Your task to perform on an android device: Go to Reddit.com Image 0: 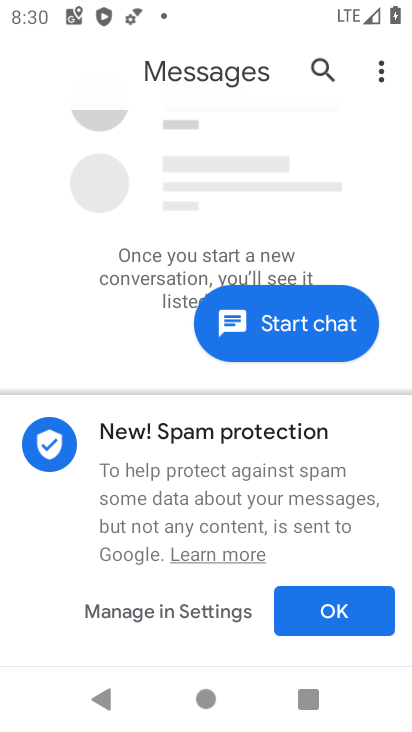
Step 0: press home button
Your task to perform on an android device: Go to Reddit.com Image 1: 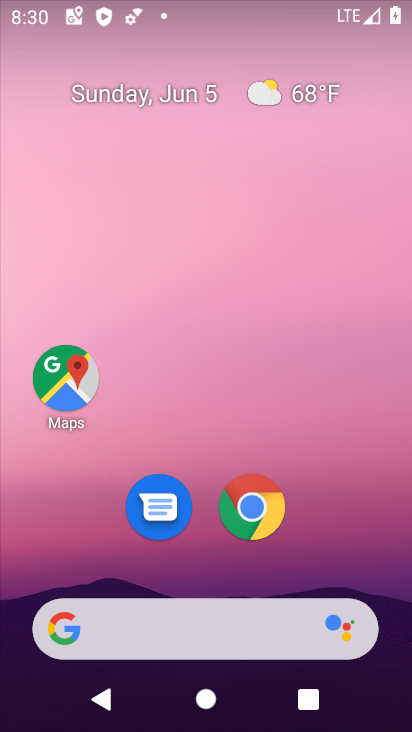
Step 1: click (258, 531)
Your task to perform on an android device: Go to Reddit.com Image 2: 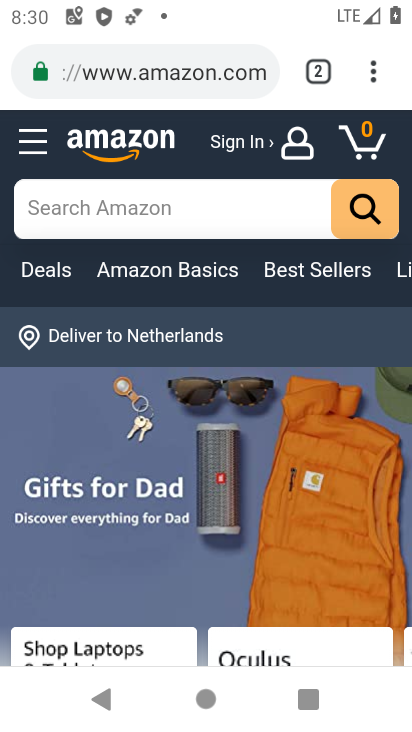
Step 2: click (189, 77)
Your task to perform on an android device: Go to Reddit.com Image 3: 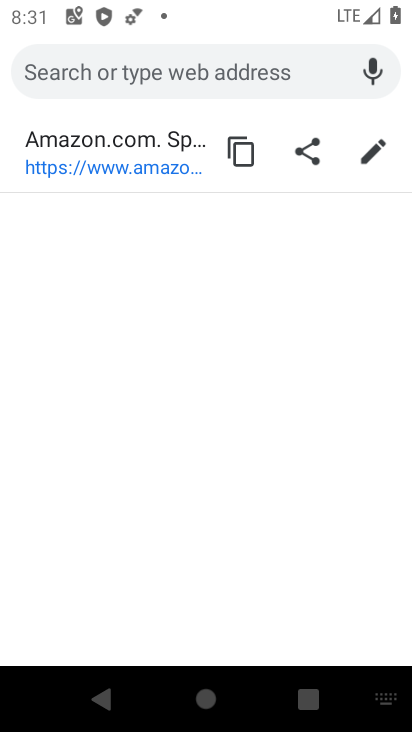
Step 3: type "Reddit.com"
Your task to perform on an android device: Go to Reddit.com Image 4: 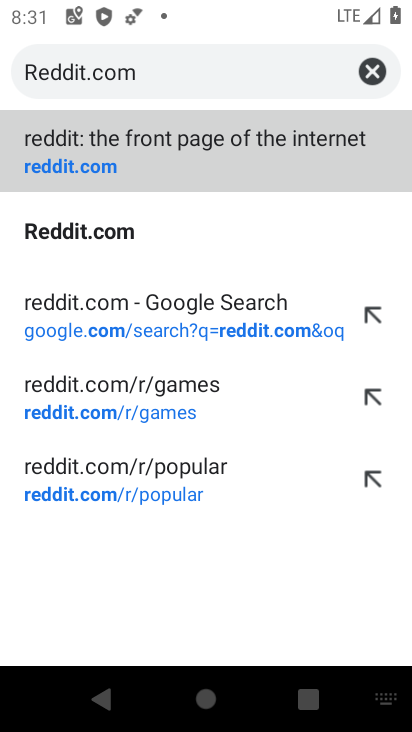
Step 4: click (127, 242)
Your task to perform on an android device: Go to Reddit.com Image 5: 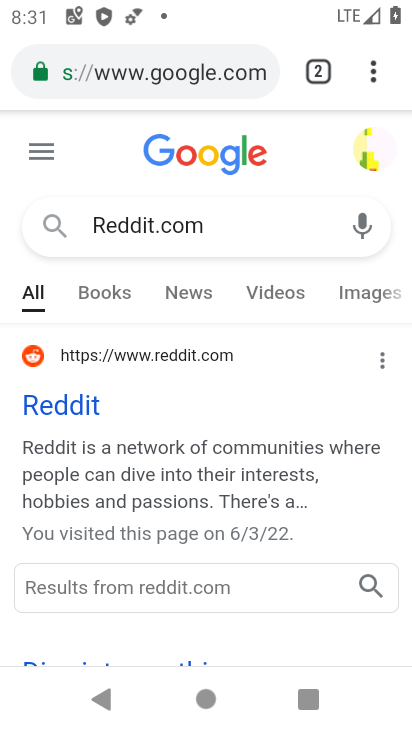
Step 5: task complete